Your task to perform on an android device: stop showing notifications on the lock screen Image 0: 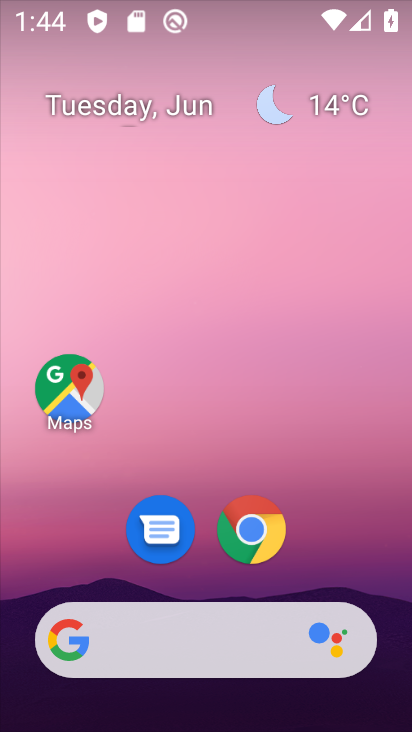
Step 0: drag from (126, 554) to (199, 173)
Your task to perform on an android device: stop showing notifications on the lock screen Image 1: 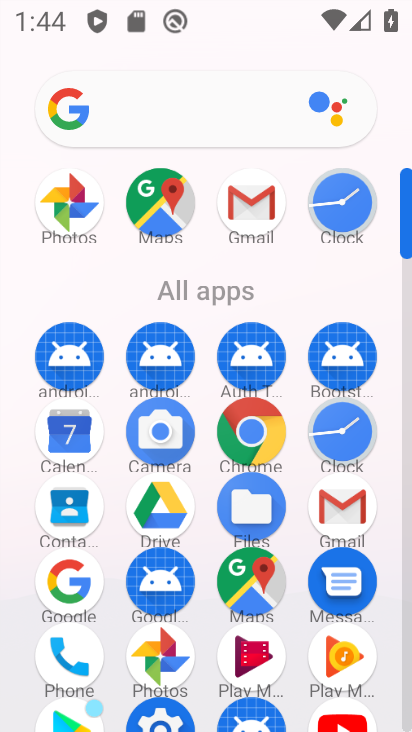
Step 1: drag from (101, 698) to (249, 306)
Your task to perform on an android device: stop showing notifications on the lock screen Image 2: 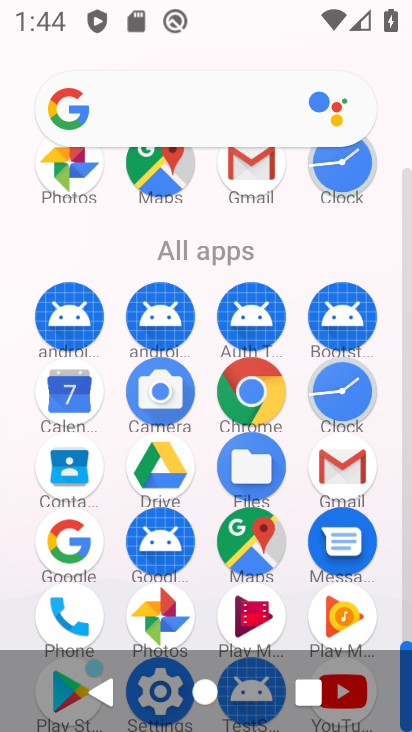
Step 2: drag from (211, 582) to (273, 301)
Your task to perform on an android device: stop showing notifications on the lock screen Image 3: 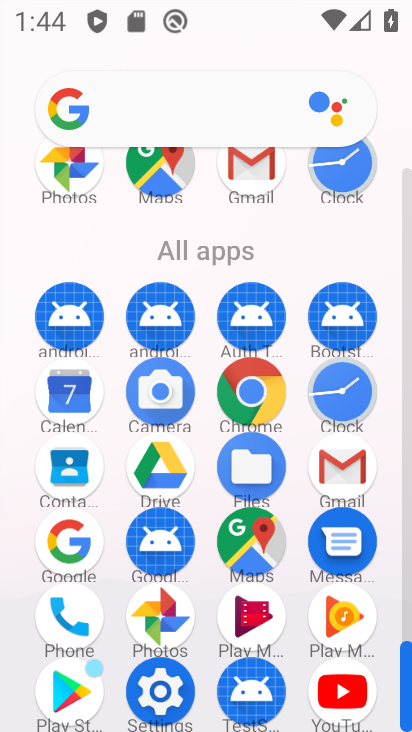
Step 3: click (154, 666)
Your task to perform on an android device: stop showing notifications on the lock screen Image 4: 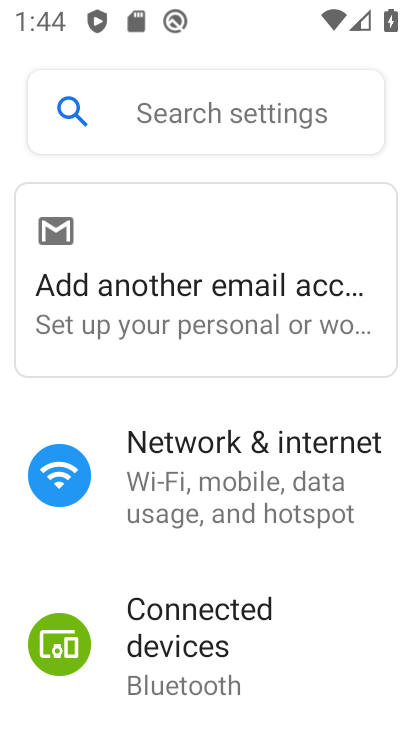
Step 4: drag from (183, 586) to (279, 249)
Your task to perform on an android device: stop showing notifications on the lock screen Image 5: 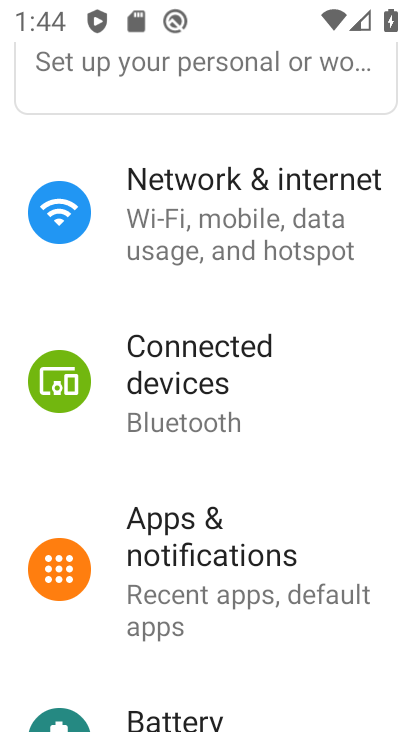
Step 5: click (239, 600)
Your task to perform on an android device: stop showing notifications on the lock screen Image 6: 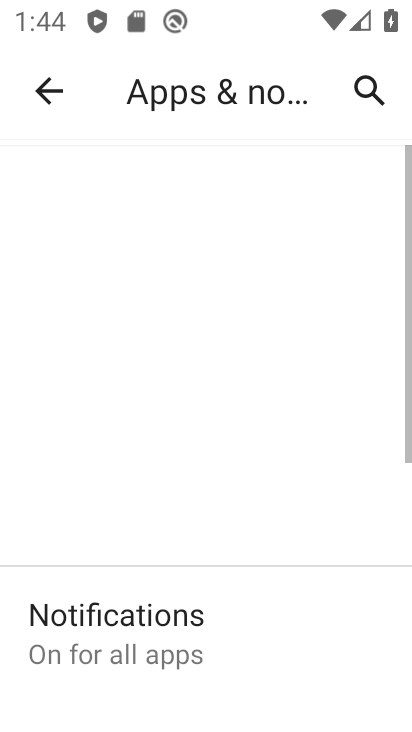
Step 6: drag from (231, 662) to (358, 172)
Your task to perform on an android device: stop showing notifications on the lock screen Image 7: 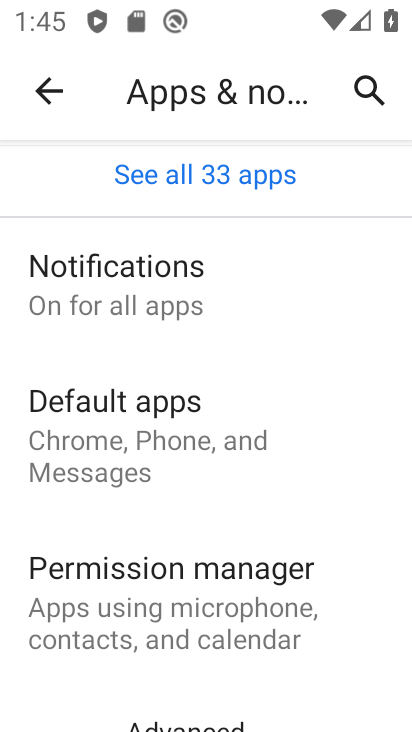
Step 7: click (209, 290)
Your task to perform on an android device: stop showing notifications on the lock screen Image 8: 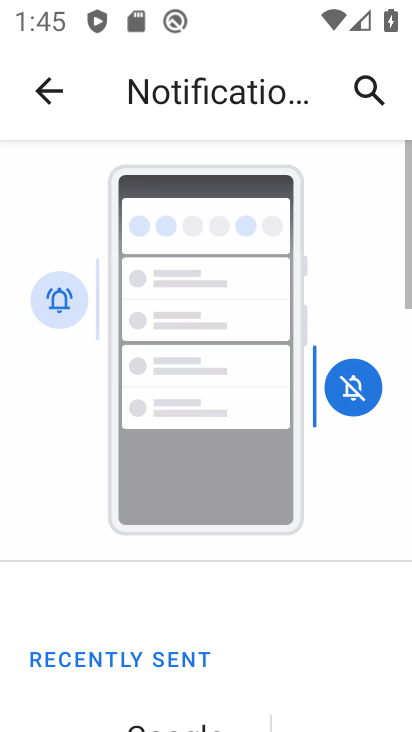
Step 8: drag from (184, 595) to (345, 76)
Your task to perform on an android device: stop showing notifications on the lock screen Image 9: 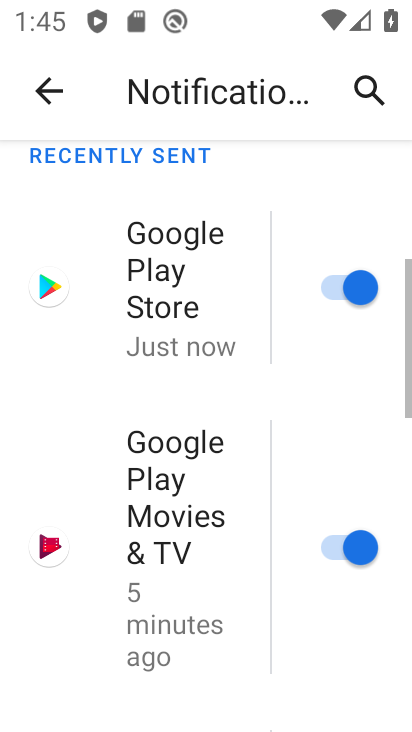
Step 9: drag from (228, 567) to (324, 199)
Your task to perform on an android device: stop showing notifications on the lock screen Image 10: 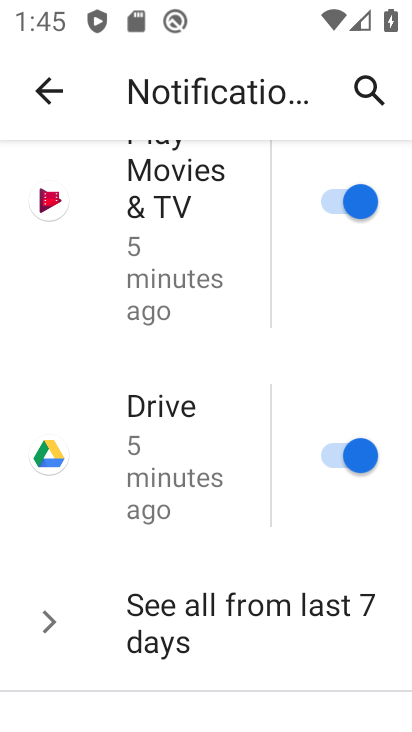
Step 10: drag from (141, 594) to (271, 220)
Your task to perform on an android device: stop showing notifications on the lock screen Image 11: 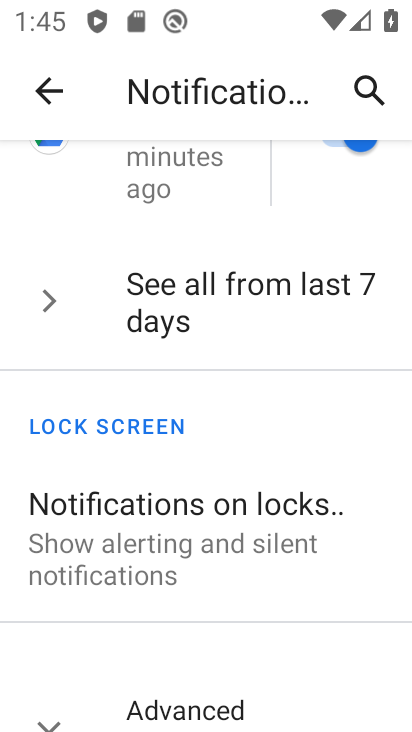
Step 11: click (245, 567)
Your task to perform on an android device: stop showing notifications on the lock screen Image 12: 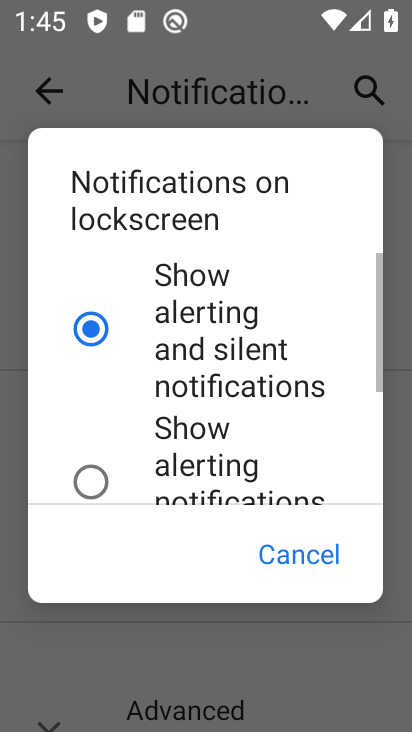
Step 12: drag from (215, 454) to (324, 137)
Your task to perform on an android device: stop showing notifications on the lock screen Image 13: 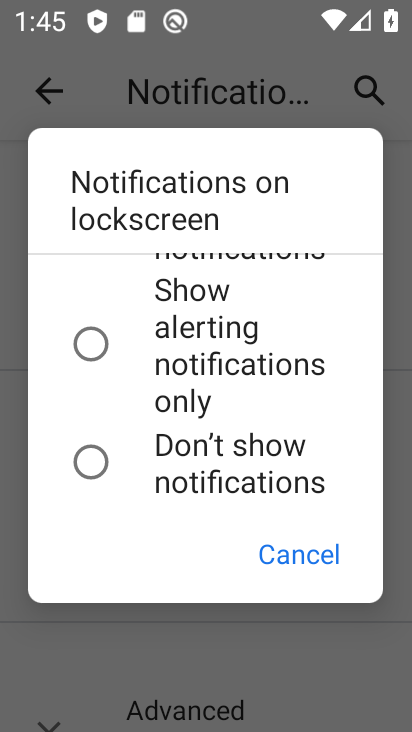
Step 13: click (219, 448)
Your task to perform on an android device: stop showing notifications on the lock screen Image 14: 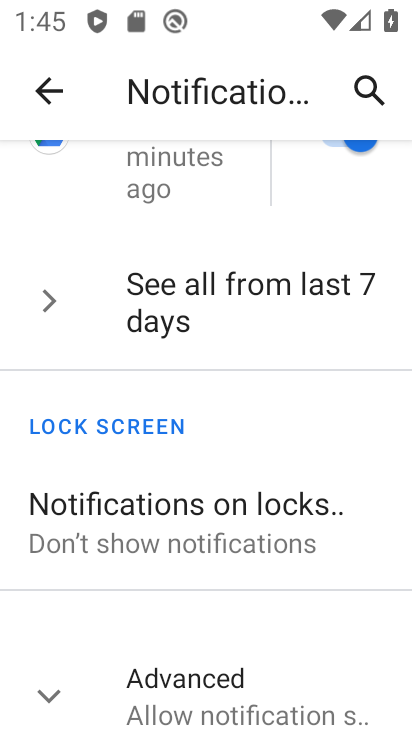
Step 14: task complete